Your task to perform on an android device: Empty the shopping cart on ebay. Image 0: 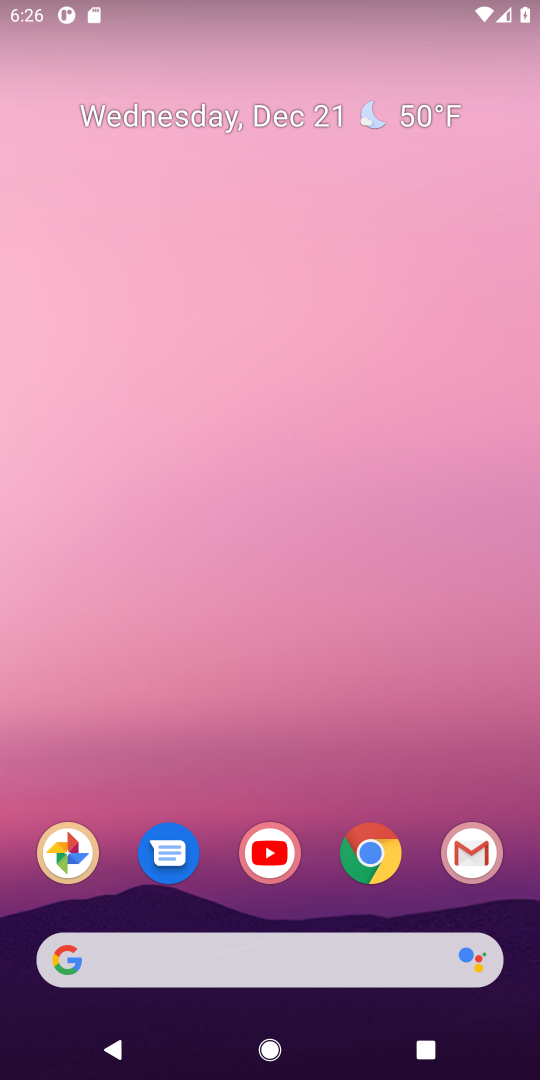
Step 0: click (380, 847)
Your task to perform on an android device: Empty the shopping cart on ebay. Image 1: 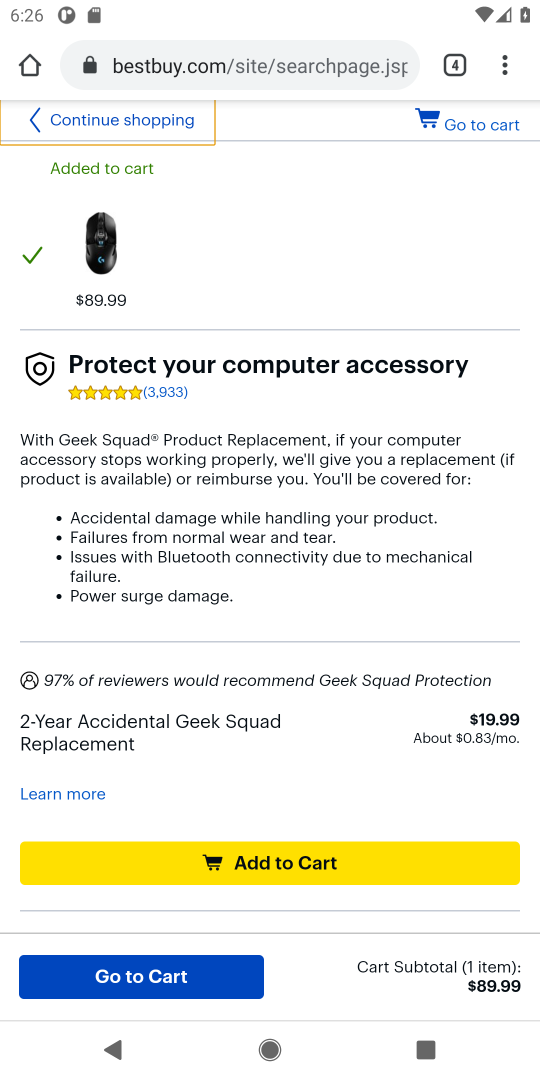
Step 1: click (447, 74)
Your task to perform on an android device: Empty the shopping cart on ebay. Image 2: 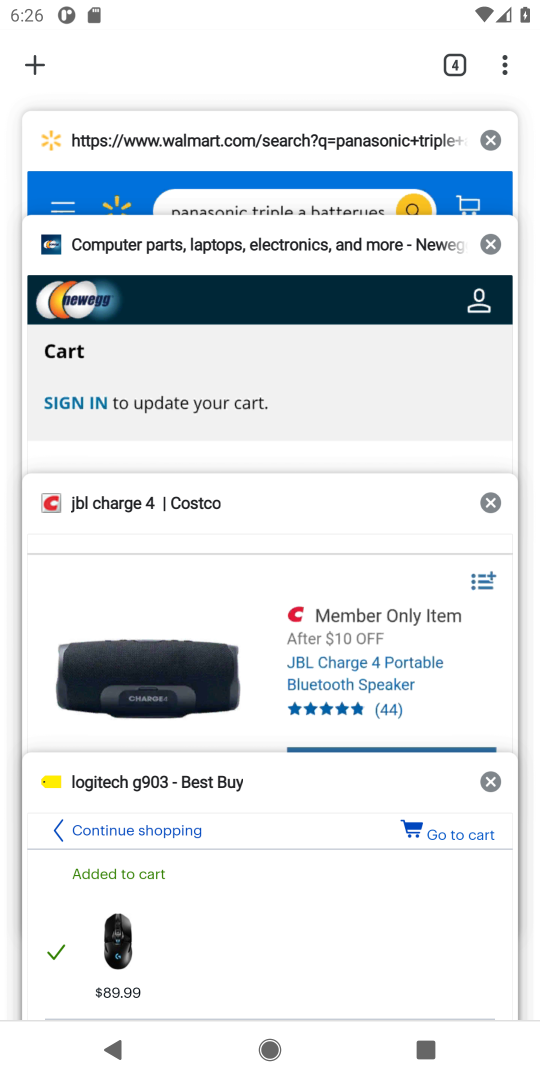
Step 2: click (310, 143)
Your task to perform on an android device: Empty the shopping cart on ebay. Image 3: 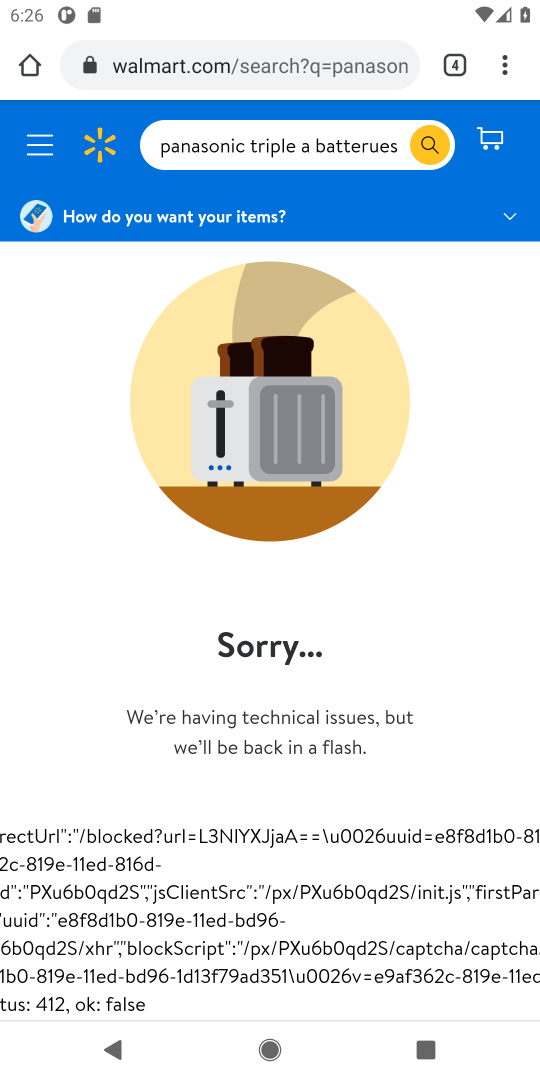
Step 3: click (279, 67)
Your task to perform on an android device: Empty the shopping cart on ebay. Image 4: 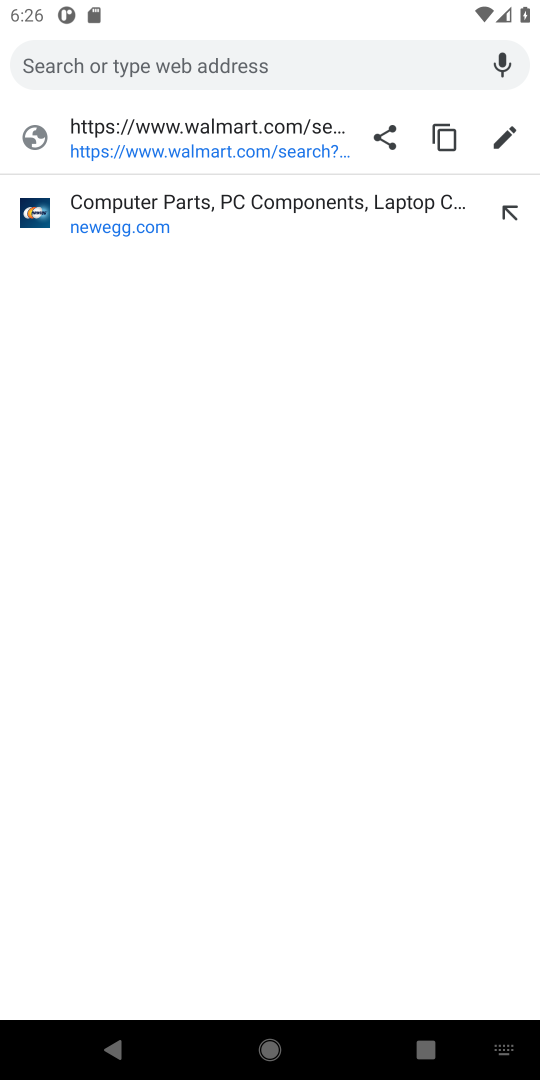
Step 4: type "ebay"
Your task to perform on an android device: Empty the shopping cart on ebay. Image 5: 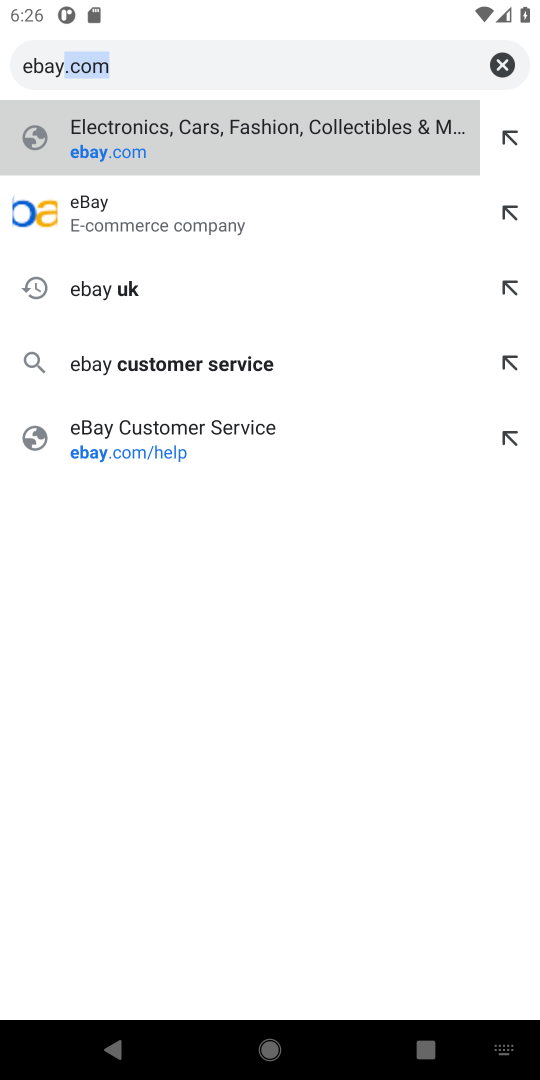
Step 5: click (171, 210)
Your task to perform on an android device: Empty the shopping cart on ebay. Image 6: 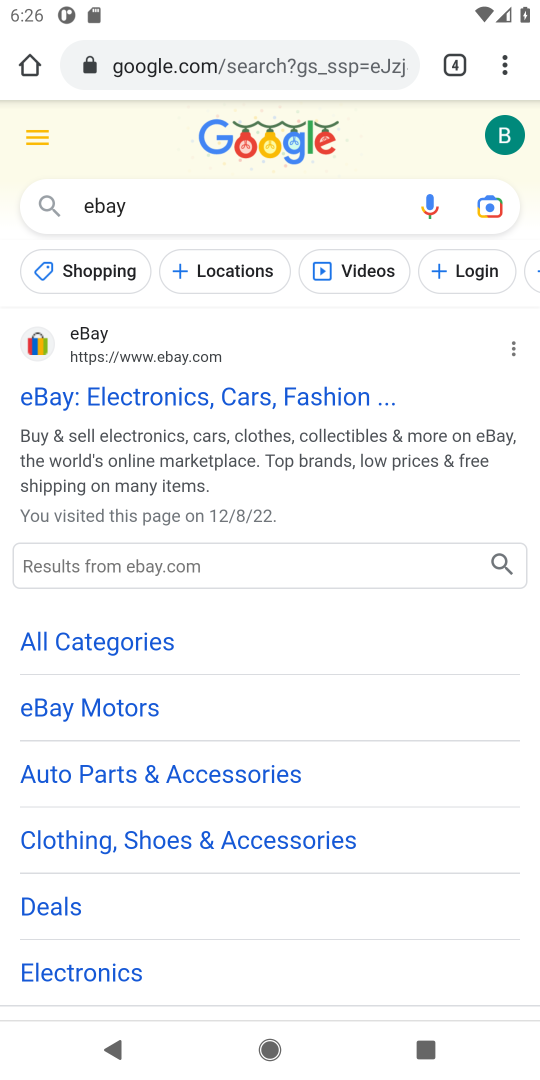
Step 6: click (182, 392)
Your task to perform on an android device: Empty the shopping cart on ebay. Image 7: 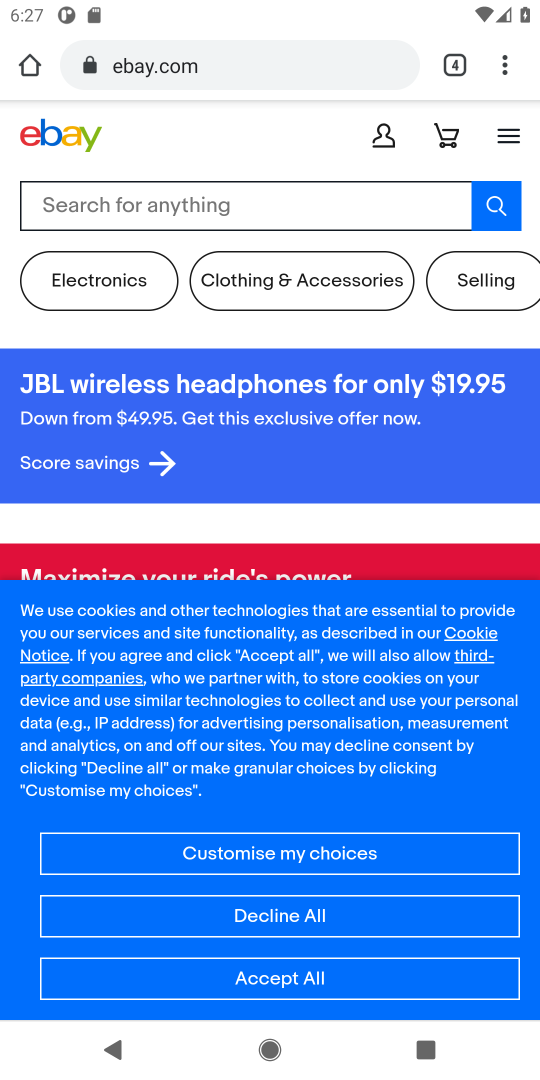
Step 7: click (293, 922)
Your task to perform on an android device: Empty the shopping cart on ebay. Image 8: 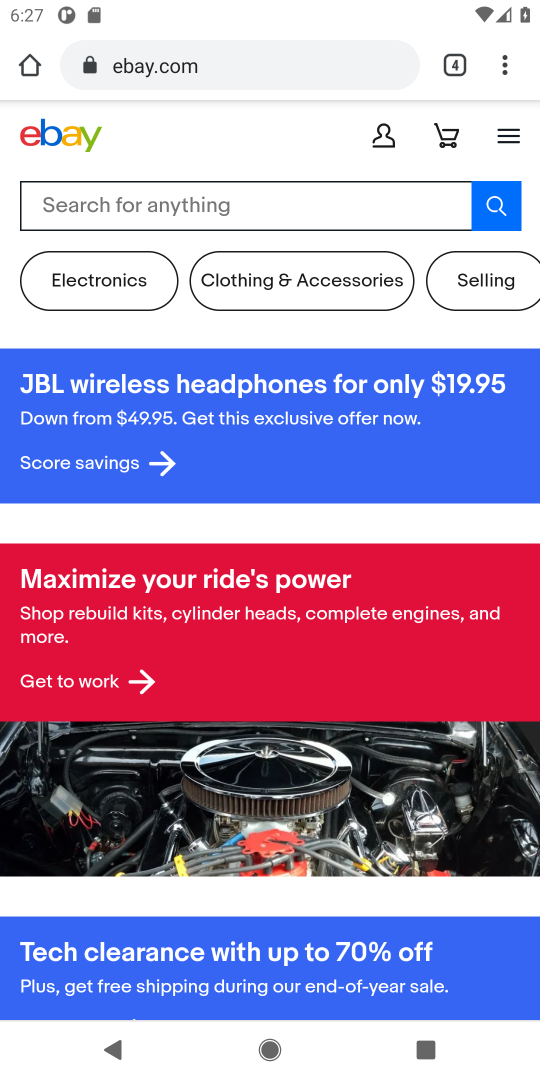
Step 8: click (447, 134)
Your task to perform on an android device: Empty the shopping cart on ebay. Image 9: 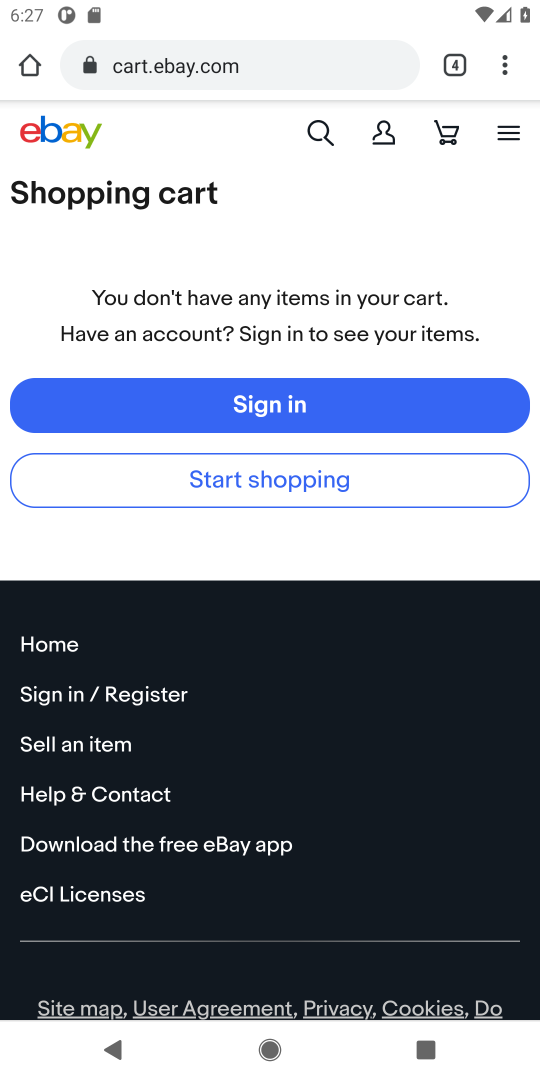
Step 9: task complete